Your task to perform on an android device: delete the emails in spam in the gmail app Image 0: 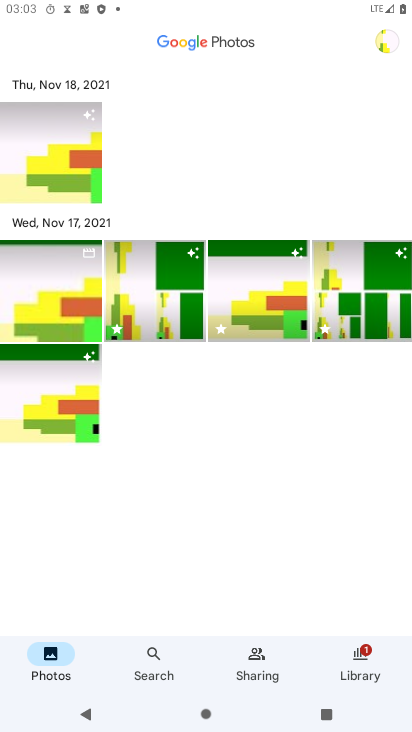
Step 0: press home button
Your task to perform on an android device: delete the emails in spam in the gmail app Image 1: 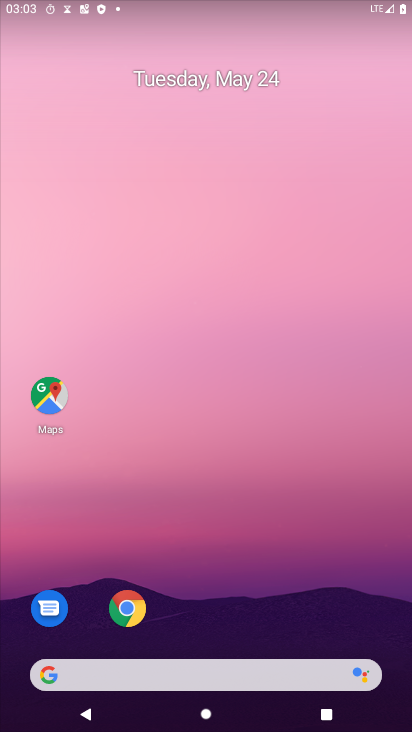
Step 1: drag from (242, 628) to (191, 73)
Your task to perform on an android device: delete the emails in spam in the gmail app Image 2: 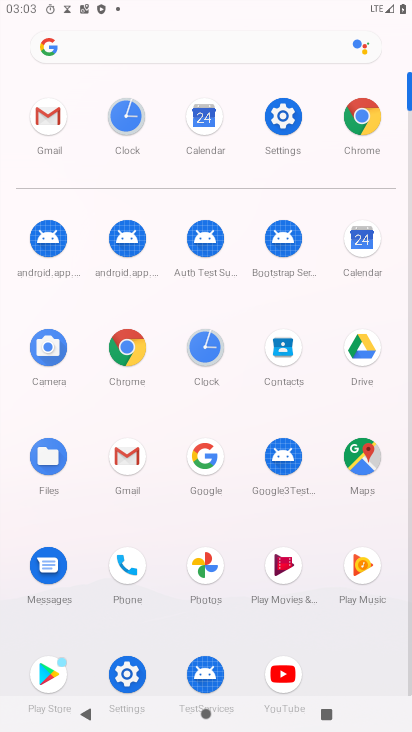
Step 2: click (51, 110)
Your task to perform on an android device: delete the emails in spam in the gmail app Image 3: 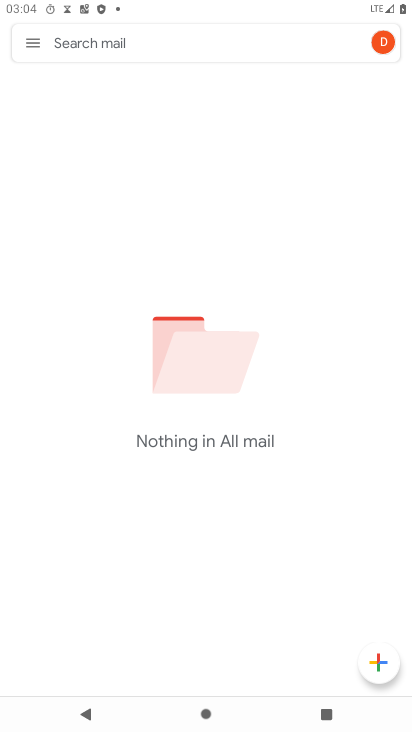
Step 3: click (32, 53)
Your task to perform on an android device: delete the emails in spam in the gmail app Image 4: 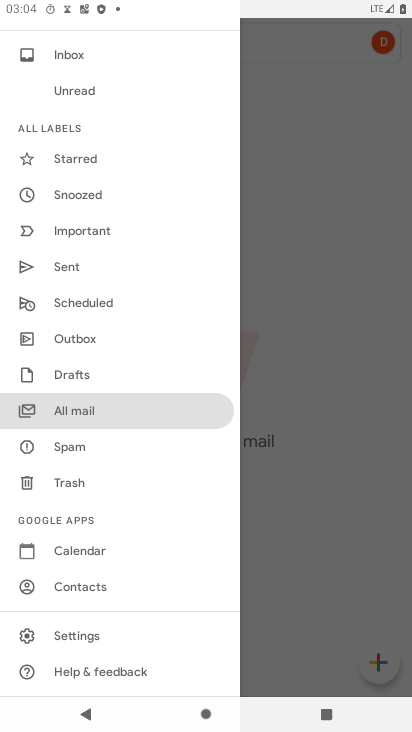
Step 4: click (85, 447)
Your task to perform on an android device: delete the emails in spam in the gmail app Image 5: 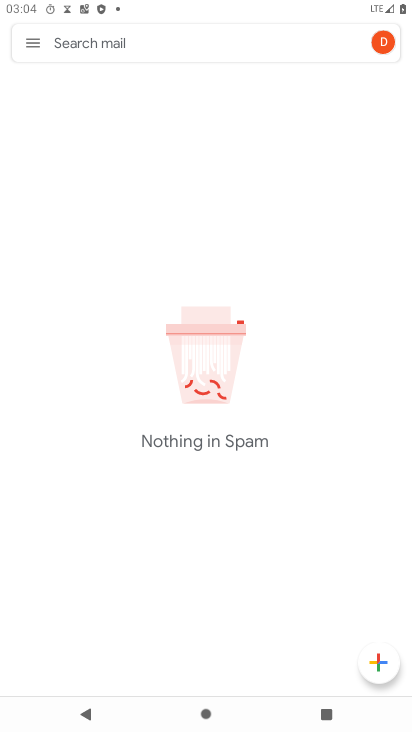
Step 5: task complete